Your task to perform on an android device: Go to display settings Image 0: 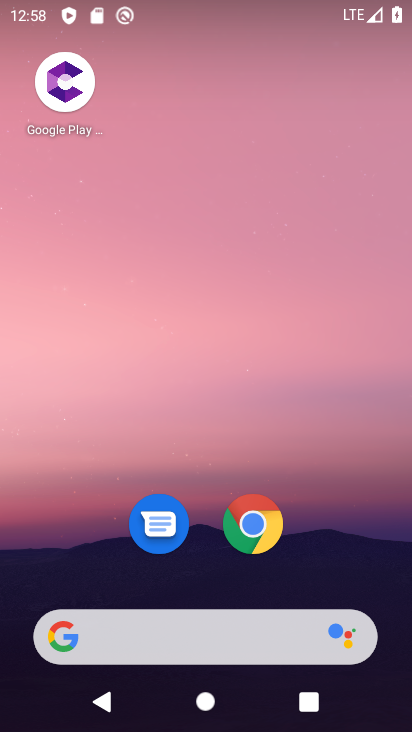
Step 0: drag from (247, 328) to (259, 5)
Your task to perform on an android device: Go to display settings Image 1: 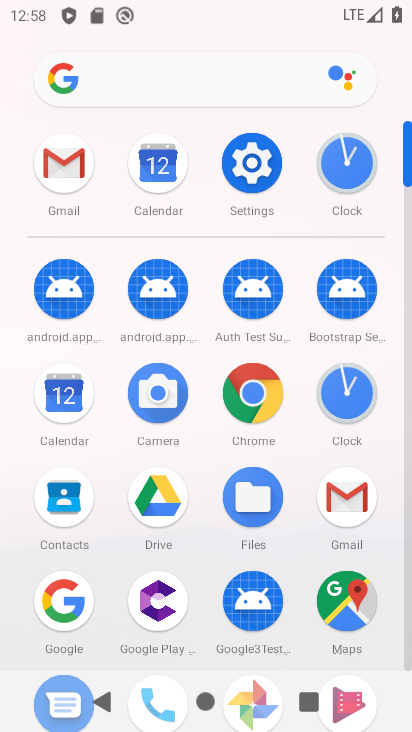
Step 1: click (260, 151)
Your task to perform on an android device: Go to display settings Image 2: 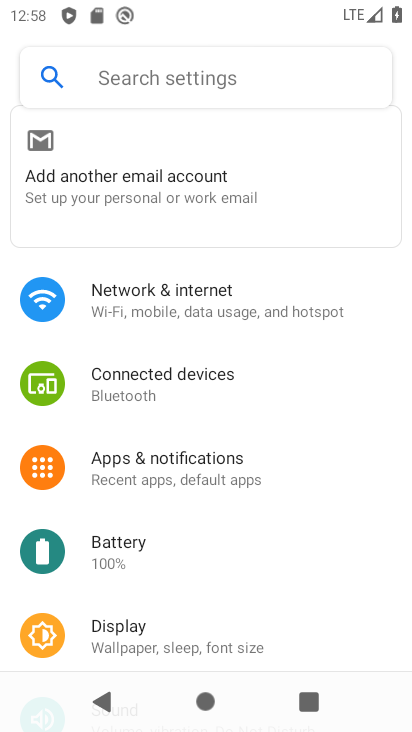
Step 2: drag from (162, 525) to (194, 155)
Your task to perform on an android device: Go to display settings Image 3: 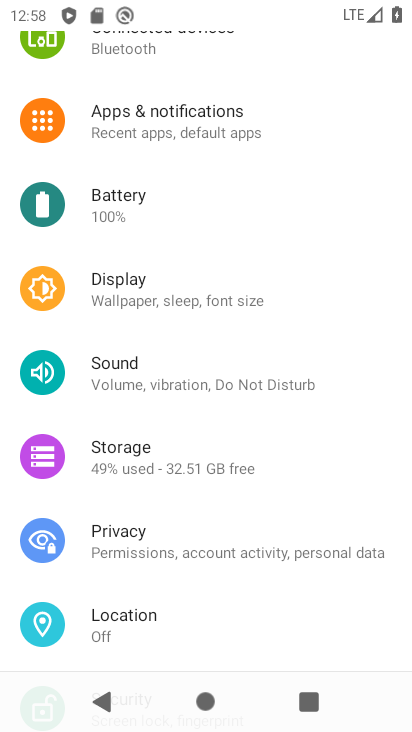
Step 3: click (200, 290)
Your task to perform on an android device: Go to display settings Image 4: 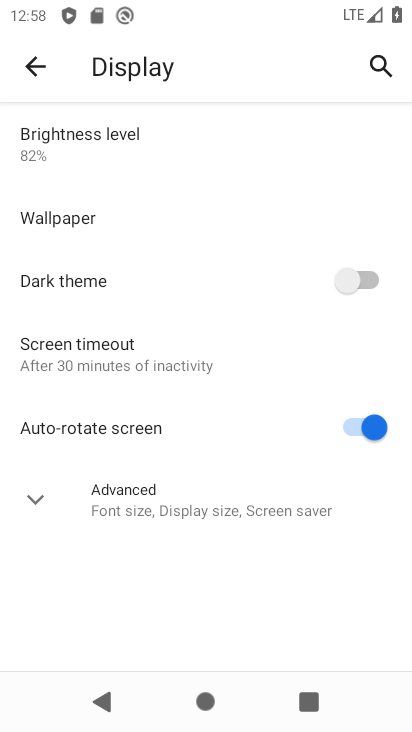
Step 4: click (36, 498)
Your task to perform on an android device: Go to display settings Image 5: 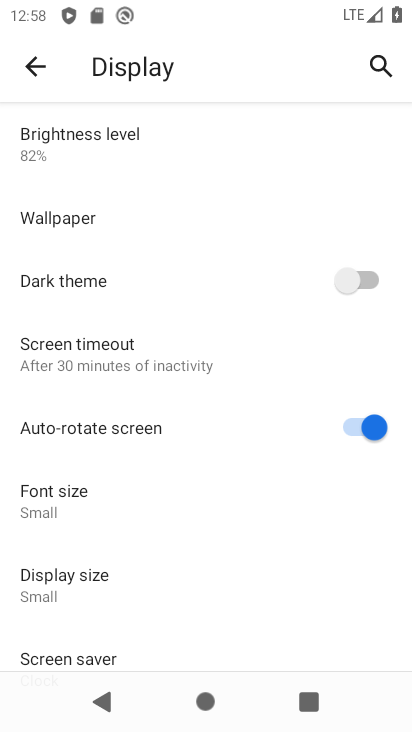
Step 5: task complete